Your task to perform on an android device: Add macbook pro 13 inch to the cart on amazon.com Image 0: 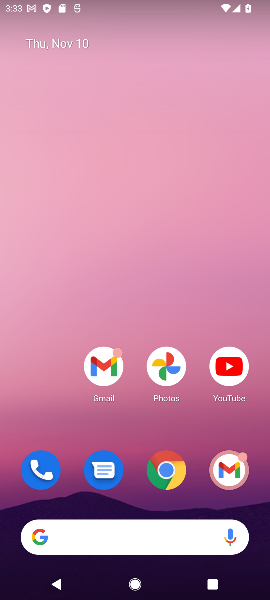
Step 0: click (171, 461)
Your task to perform on an android device: Add macbook pro 13 inch to the cart on amazon.com Image 1: 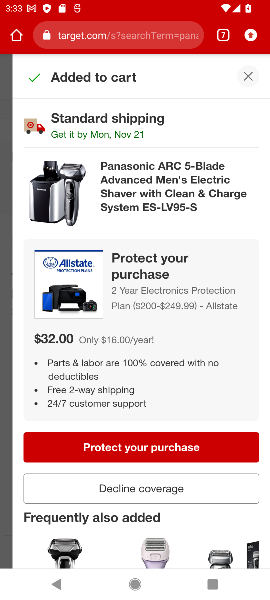
Step 1: click (225, 27)
Your task to perform on an android device: Add macbook pro 13 inch to the cart on amazon.com Image 2: 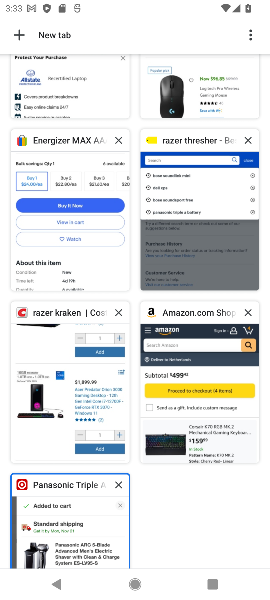
Step 2: click (191, 409)
Your task to perform on an android device: Add macbook pro 13 inch to the cart on amazon.com Image 3: 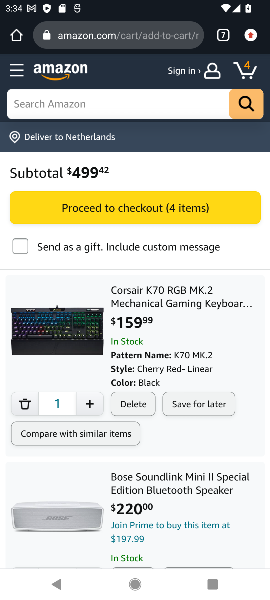
Step 3: click (69, 101)
Your task to perform on an android device: Add macbook pro 13 inch to the cart on amazon.com Image 4: 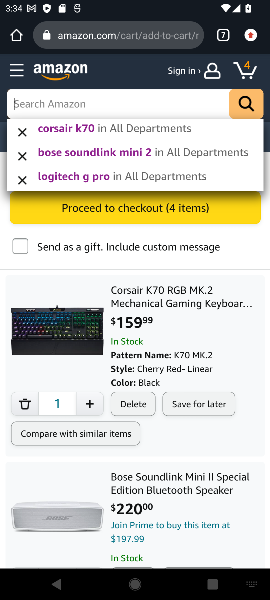
Step 4: type "macbook pro 13 inch"
Your task to perform on an android device: Add macbook pro 13 inch to the cart on amazon.com Image 5: 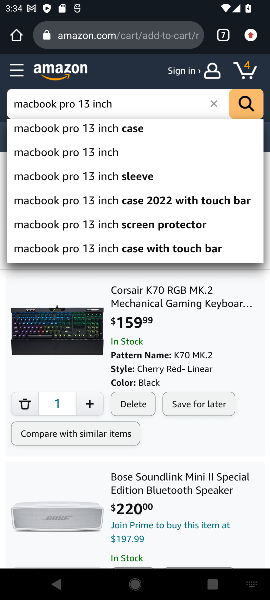
Step 5: click (68, 151)
Your task to perform on an android device: Add macbook pro 13 inch to the cart on amazon.com Image 6: 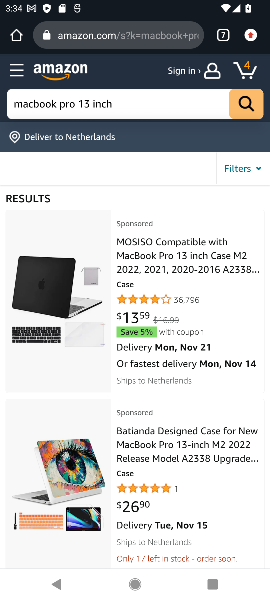
Step 6: drag from (201, 497) to (194, 214)
Your task to perform on an android device: Add macbook pro 13 inch to the cart on amazon.com Image 7: 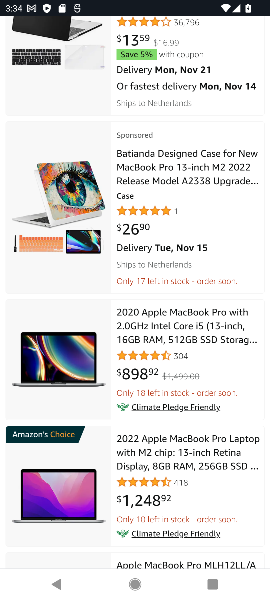
Step 7: click (182, 454)
Your task to perform on an android device: Add macbook pro 13 inch to the cart on amazon.com Image 8: 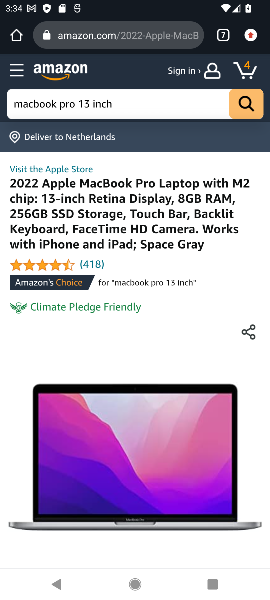
Step 8: drag from (26, 482) to (106, 51)
Your task to perform on an android device: Add macbook pro 13 inch to the cart on amazon.com Image 9: 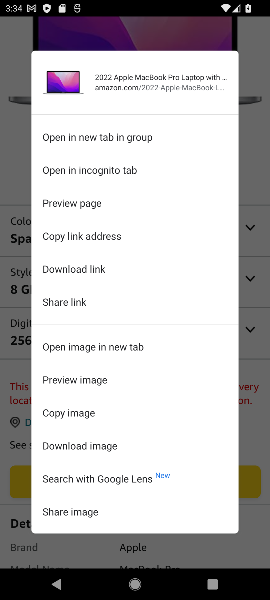
Step 9: click (258, 164)
Your task to perform on an android device: Add macbook pro 13 inch to the cart on amazon.com Image 10: 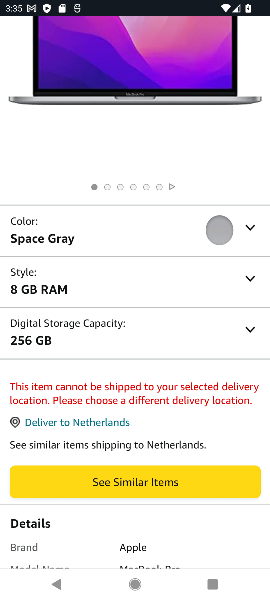
Step 10: click (187, 483)
Your task to perform on an android device: Add macbook pro 13 inch to the cart on amazon.com Image 11: 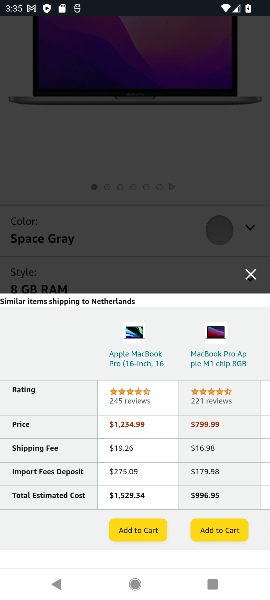
Step 11: click (141, 526)
Your task to perform on an android device: Add macbook pro 13 inch to the cart on amazon.com Image 12: 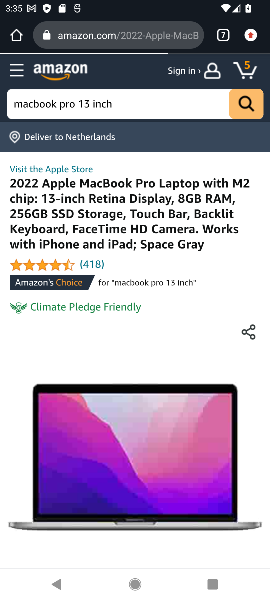
Step 12: task complete